Your task to perform on an android device: Open Maps and search for coffee Image 0: 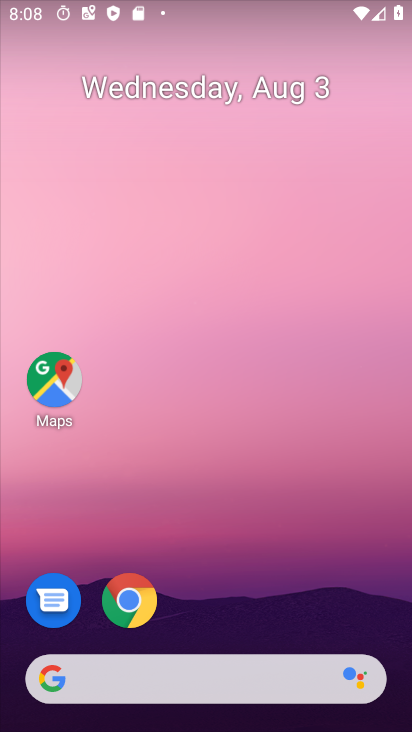
Step 0: drag from (212, 556) to (181, 31)
Your task to perform on an android device: Open Maps and search for coffee Image 1: 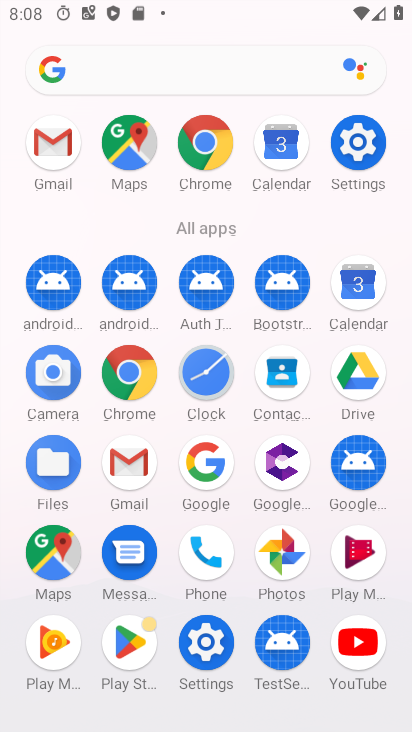
Step 1: click (48, 566)
Your task to perform on an android device: Open Maps and search for coffee Image 2: 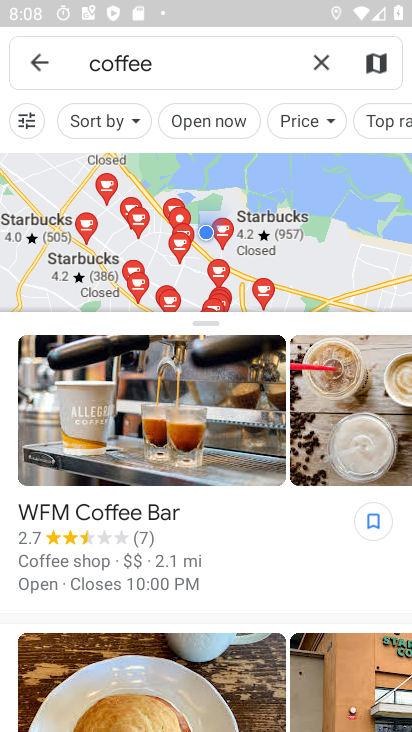
Step 2: drag from (180, 355) to (180, 276)
Your task to perform on an android device: Open Maps and search for coffee Image 3: 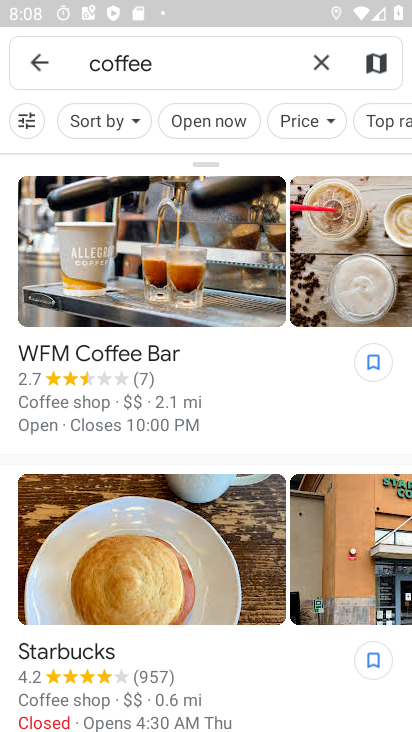
Step 3: click (130, 365)
Your task to perform on an android device: Open Maps and search for coffee Image 4: 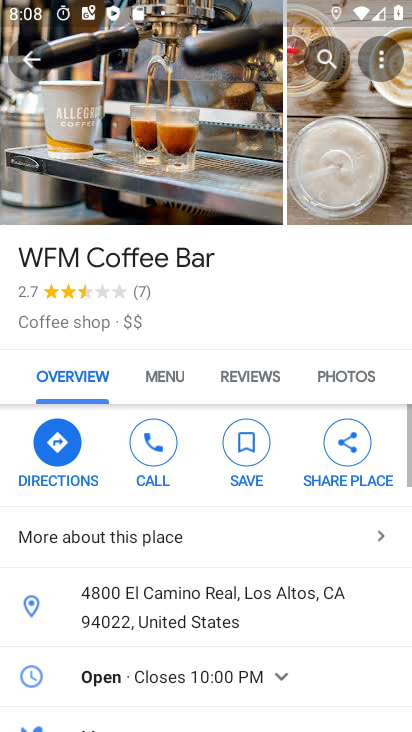
Step 4: task complete